Your task to perform on an android device: change your default location settings in chrome Image 0: 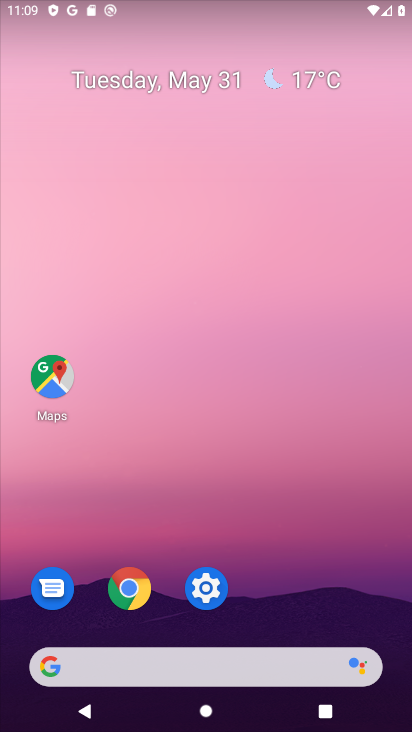
Step 0: click (122, 588)
Your task to perform on an android device: change your default location settings in chrome Image 1: 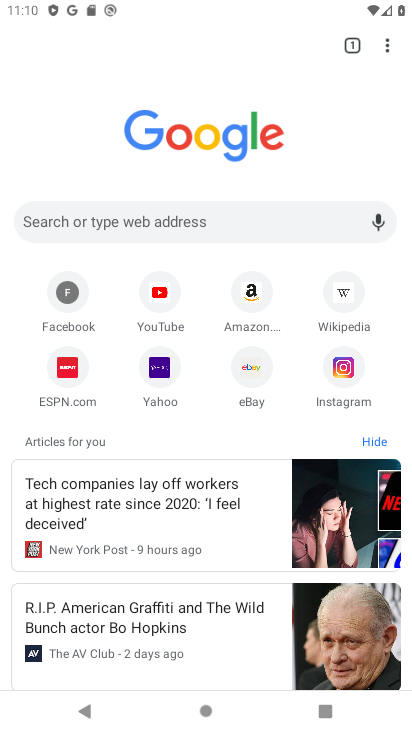
Step 1: click (385, 49)
Your task to perform on an android device: change your default location settings in chrome Image 2: 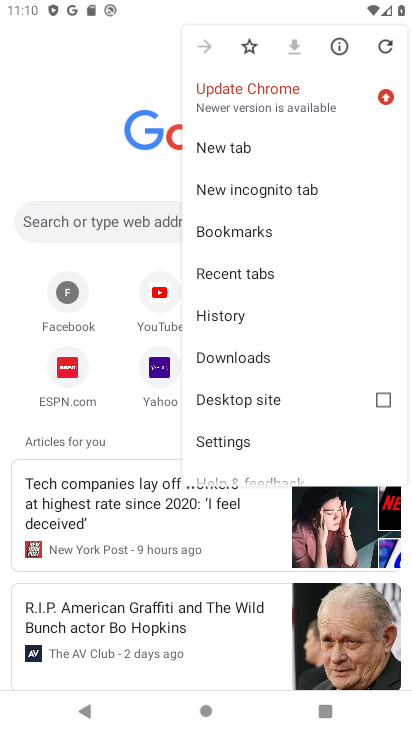
Step 2: click (228, 438)
Your task to perform on an android device: change your default location settings in chrome Image 3: 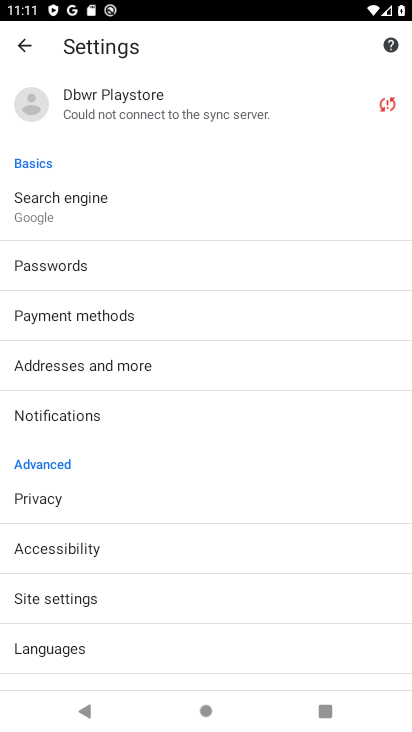
Step 3: click (93, 599)
Your task to perform on an android device: change your default location settings in chrome Image 4: 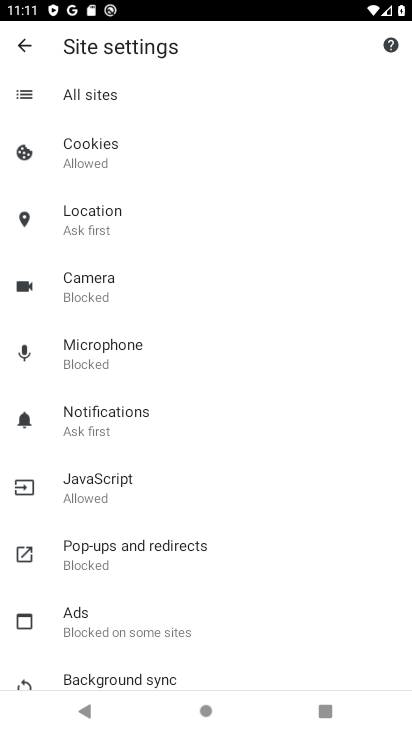
Step 4: click (88, 219)
Your task to perform on an android device: change your default location settings in chrome Image 5: 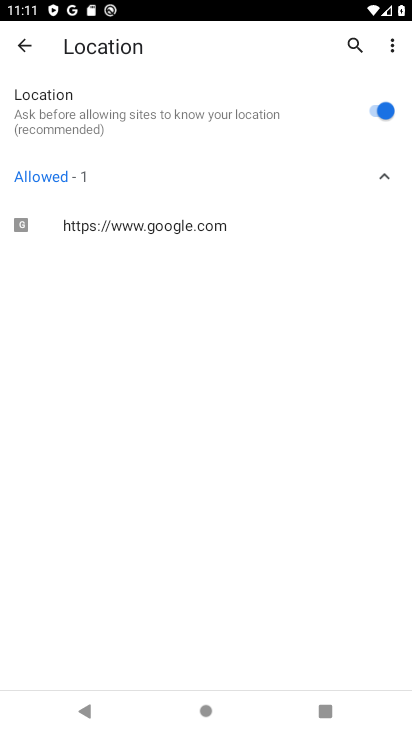
Step 5: task complete